Your task to perform on an android device: check data usage Image 0: 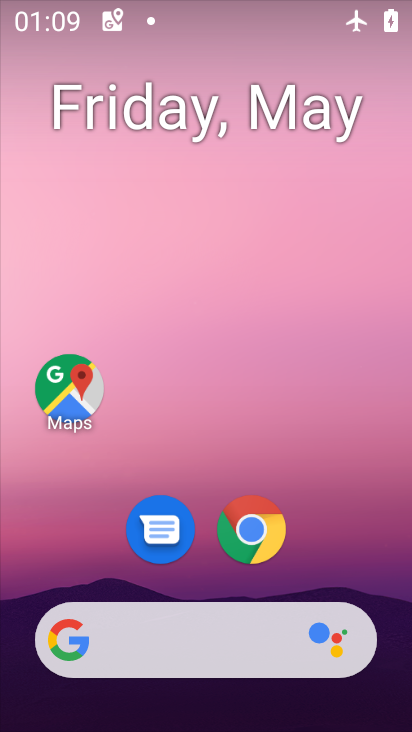
Step 0: drag from (306, 404) to (245, 156)
Your task to perform on an android device: check data usage Image 1: 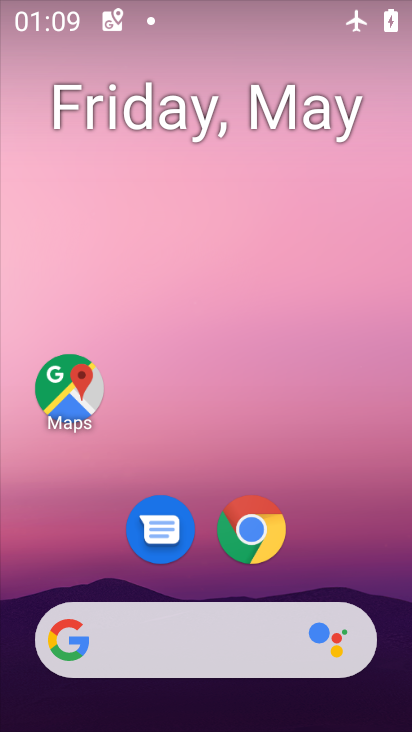
Step 1: drag from (272, 565) to (310, 219)
Your task to perform on an android device: check data usage Image 2: 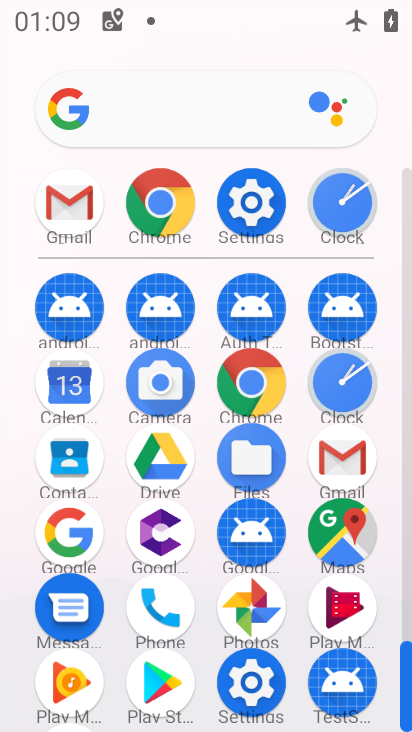
Step 2: click (234, 197)
Your task to perform on an android device: check data usage Image 3: 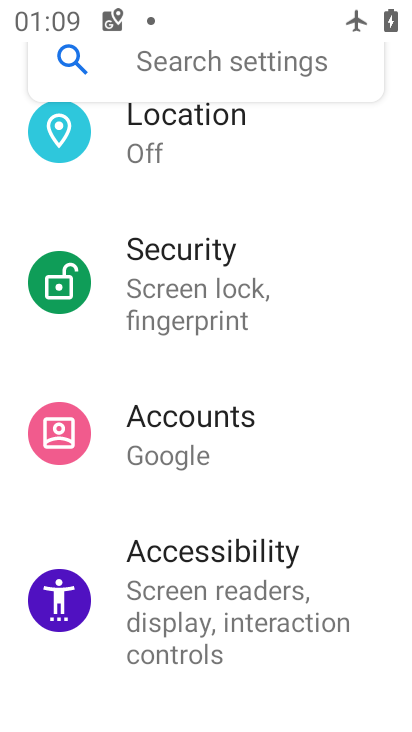
Step 3: drag from (284, 169) to (278, 621)
Your task to perform on an android device: check data usage Image 4: 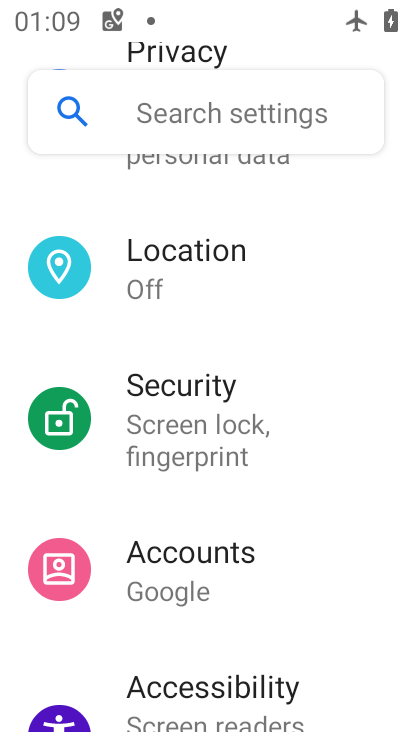
Step 4: drag from (259, 235) to (255, 584)
Your task to perform on an android device: check data usage Image 5: 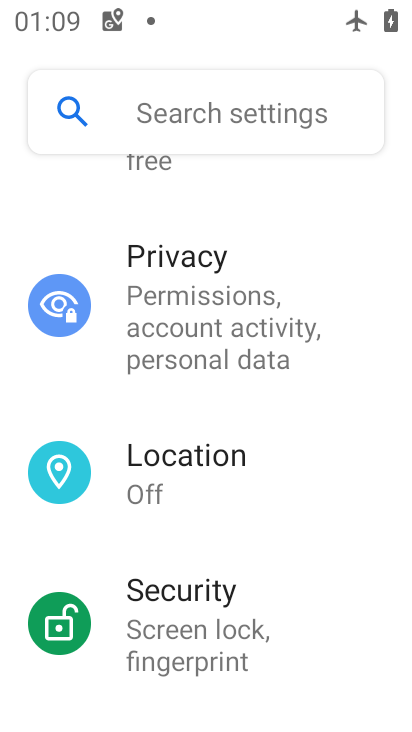
Step 5: drag from (183, 245) to (181, 614)
Your task to perform on an android device: check data usage Image 6: 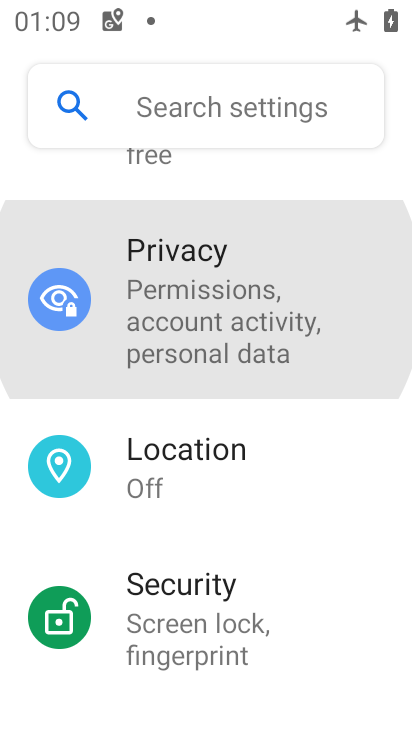
Step 6: drag from (165, 275) to (184, 653)
Your task to perform on an android device: check data usage Image 7: 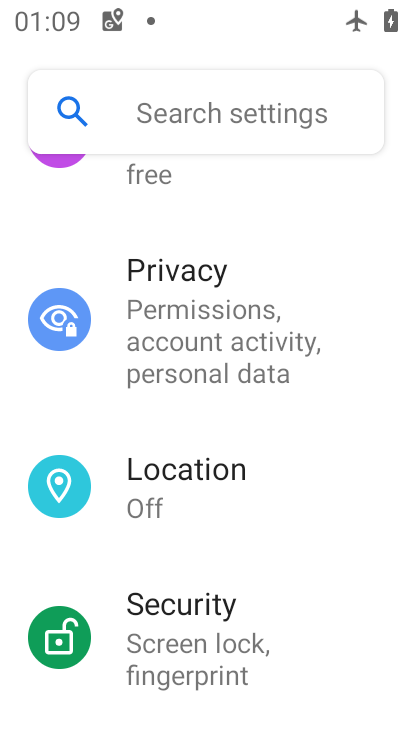
Step 7: drag from (274, 314) to (263, 506)
Your task to perform on an android device: check data usage Image 8: 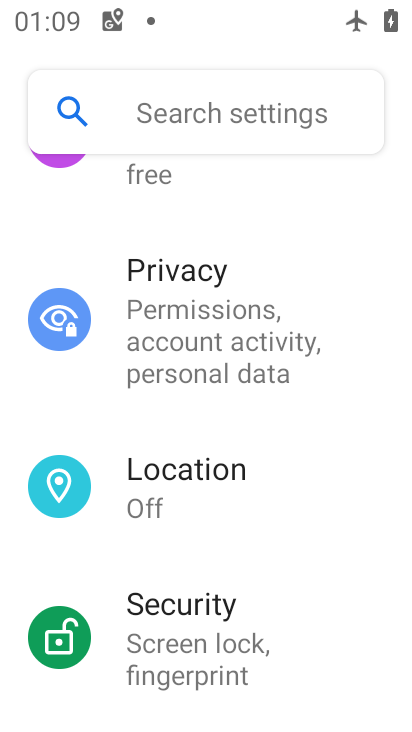
Step 8: drag from (225, 255) to (226, 624)
Your task to perform on an android device: check data usage Image 9: 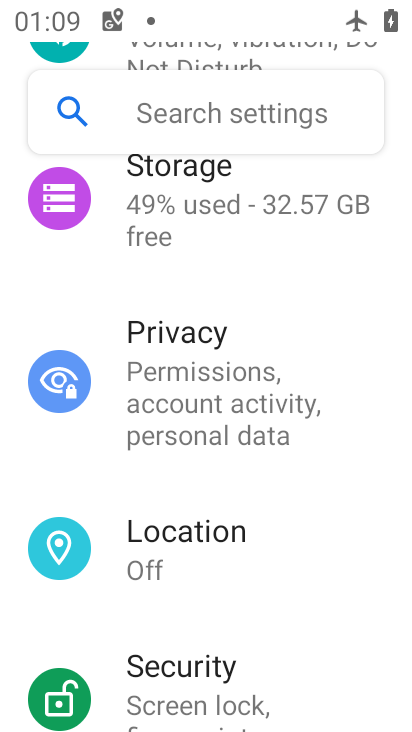
Step 9: drag from (147, 216) to (118, 617)
Your task to perform on an android device: check data usage Image 10: 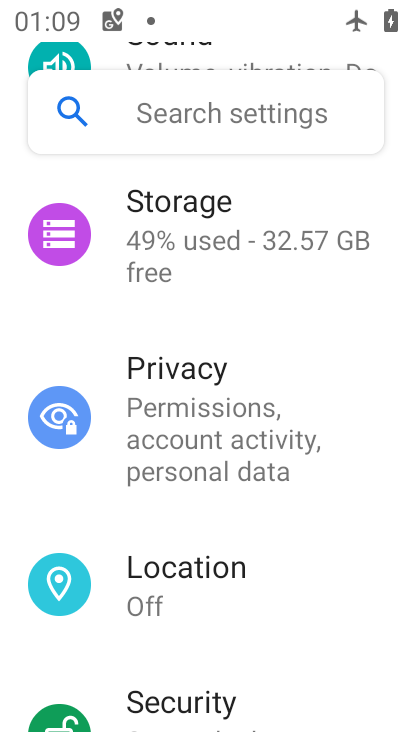
Step 10: drag from (80, 544) to (110, 698)
Your task to perform on an android device: check data usage Image 11: 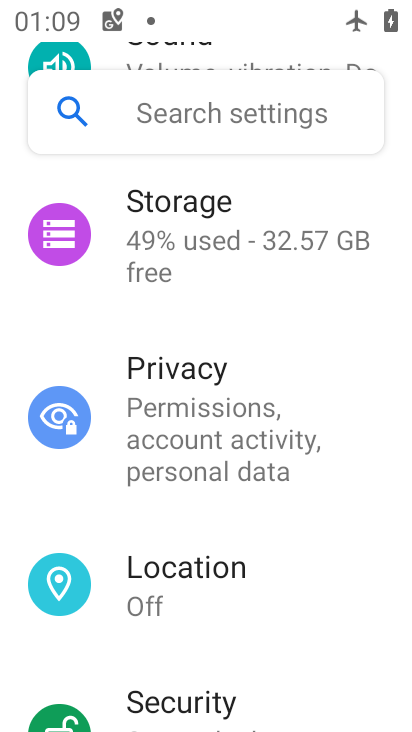
Step 11: drag from (143, 386) to (176, 717)
Your task to perform on an android device: check data usage Image 12: 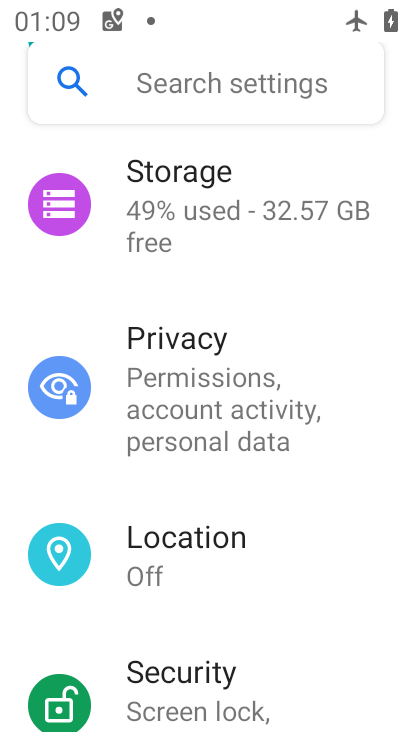
Step 12: drag from (287, 234) to (266, 586)
Your task to perform on an android device: check data usage Image 13: 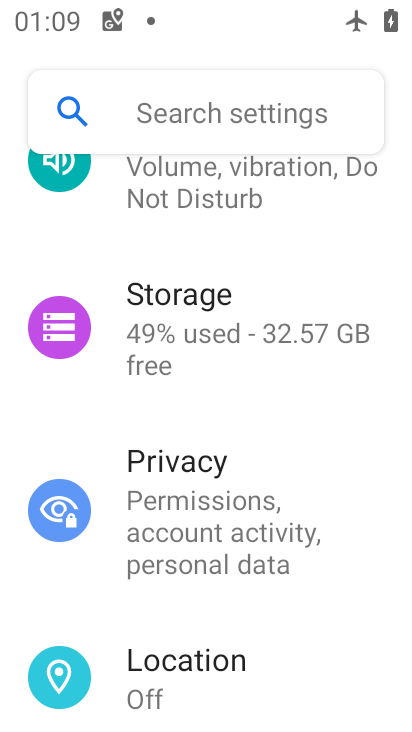
Step 13: drag from (157, 464) to (172, 686)
Your task to perform on an android device: check data usage Image 14: 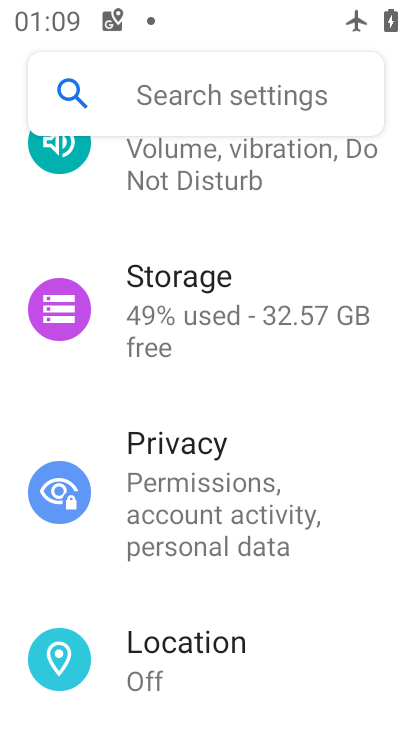
Step 14: drag from (198, 407) to (198, 709)
Your task to perform on an android device: check data usage Image 15: 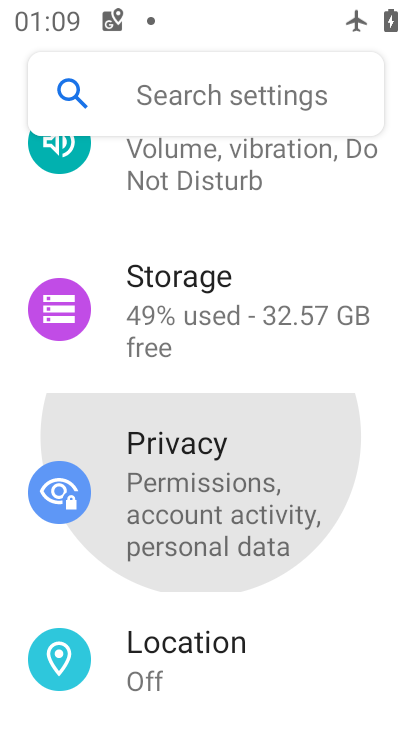
Step 15: drag from (220, 560) to (257, 696)
Your task to perform on an android device: check data usage Image 16: 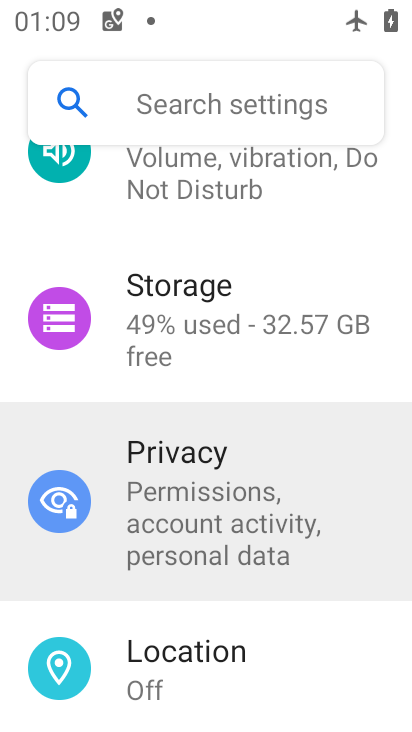
Step 16: drag from (248, 343) to (279, 525)
Your task to perform on an android device: check data usage Image 17: 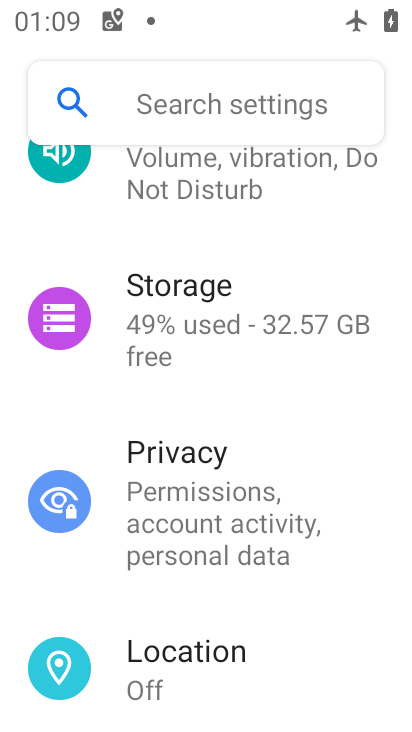
Step 17: drag from (345, 252) to (354, 606)
Your task to perform on an android device: check data usage Image 18: 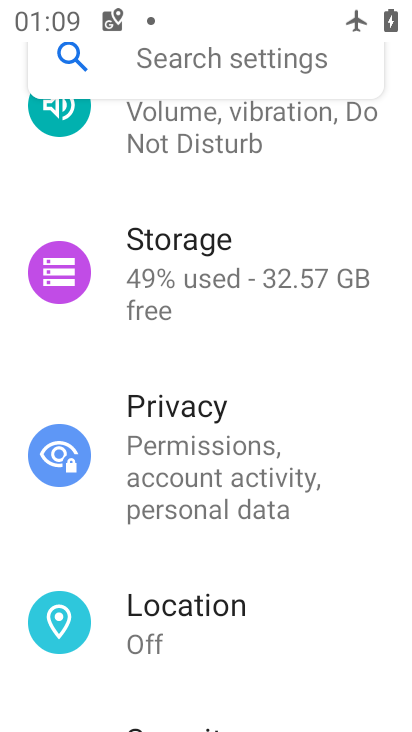
Step 18: drag from (312, 174) to (270, 519)
Your task to perform on an android device: check data usage Image 19: 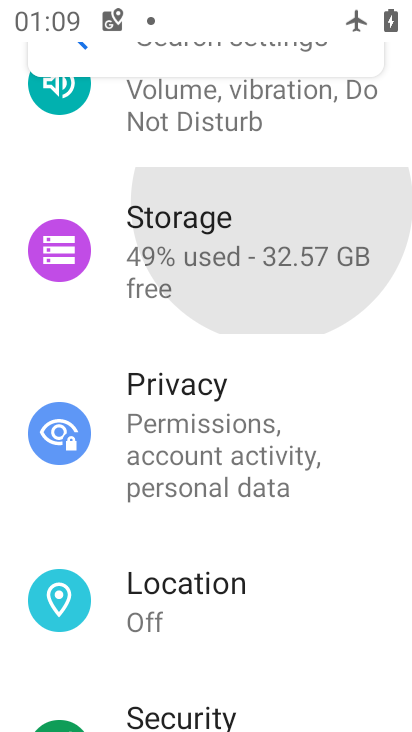
Step 19: drag from (224, 205) to (236, 672)
Your task to perform on an android device: check data usage Image 20: 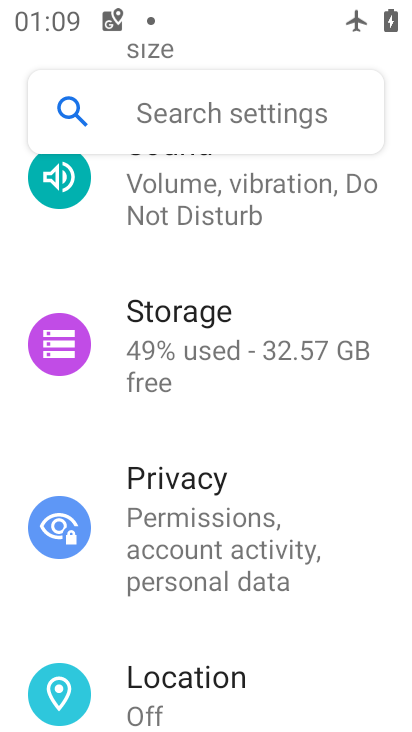
Step 20: drag from (171, 273) to (252, 654)
Your task to perform on an android device: check data usage Image 21: 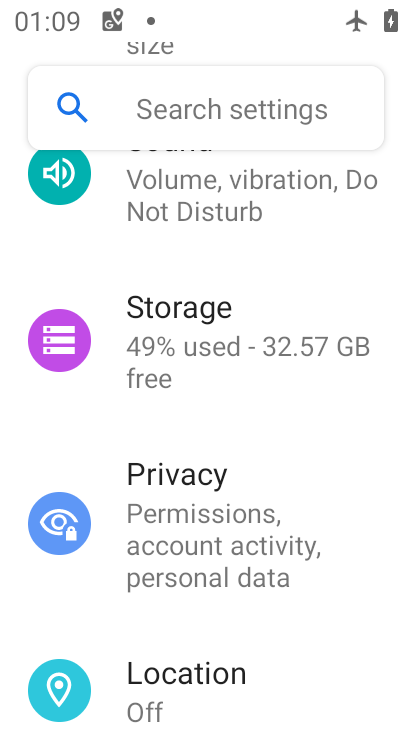
Step 21: drag from (111, 262) to (220, 624)
Your task to perform on an android device: check data usage Image 22: 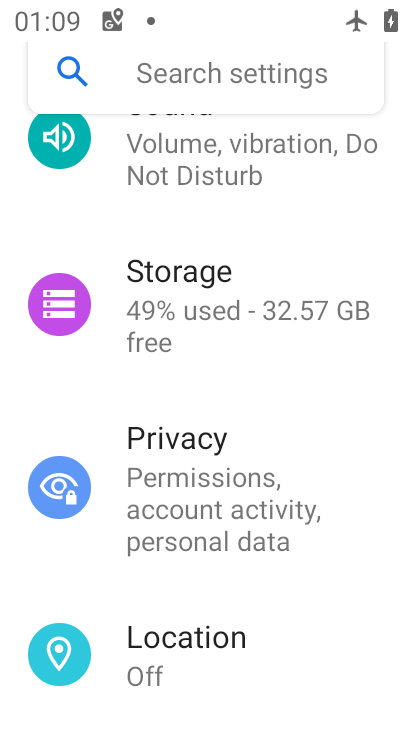
Step 22: drag from (189, 299) to (192, 573)
Your task to perform on an android device: check data usage Image 23: 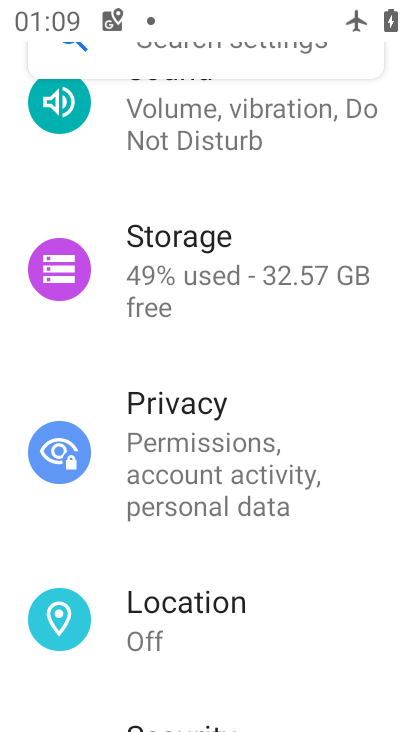
Step 23: drag from (188, 441) to (246, 616)
Your task to perform on an android device: check data usage Image 24: 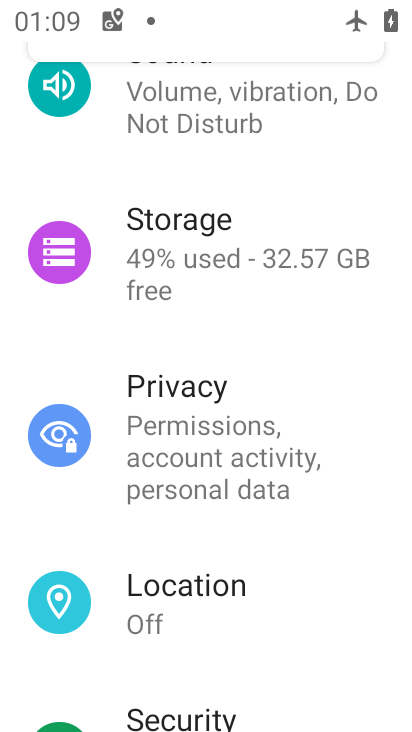
Step 24: click (213, 459)
Your task to perform on an android device: check data usage Image 25: 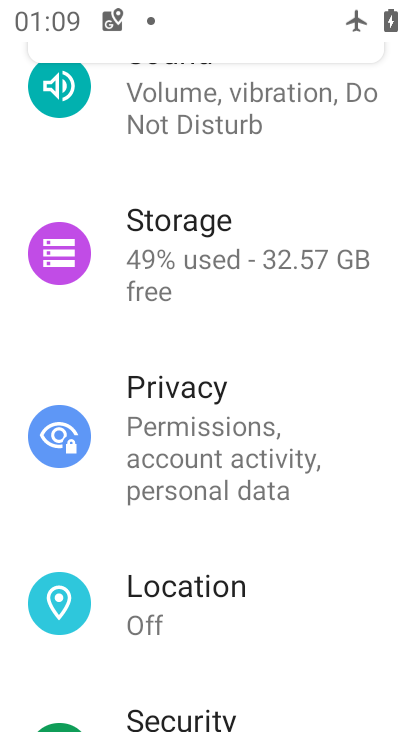
Step 25: click (265, 576)
Your task to perform on an android device: check data usage Image 26: 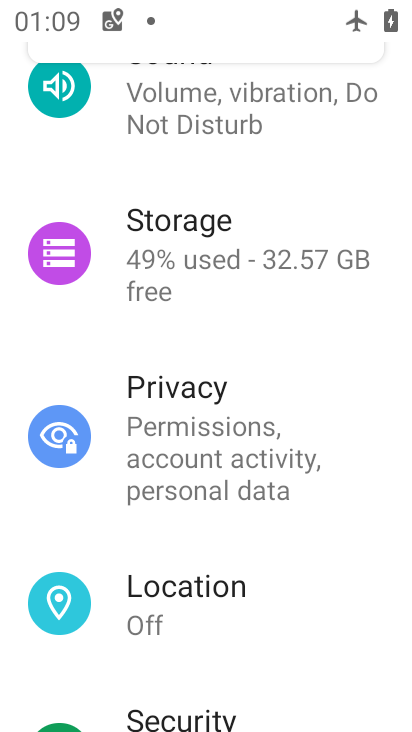
Step 26: drag from (292, 304) to (307, 513)
Your task to perform on an android device: check data usage Image 27: 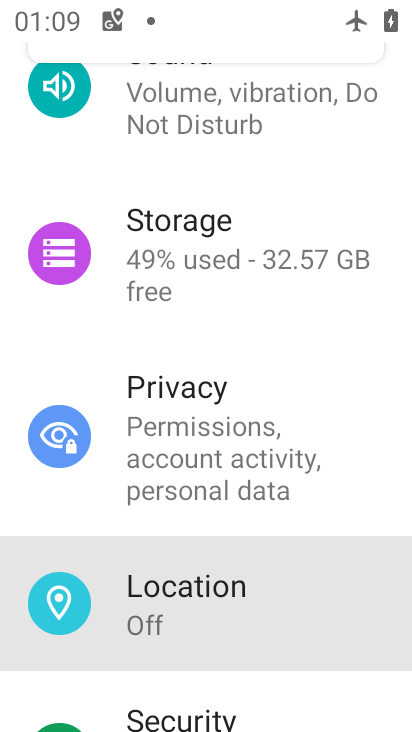
Step 27: drag from (224, 271) to (222, 449)
Your task to perform on an android device: check data usage Image 28: 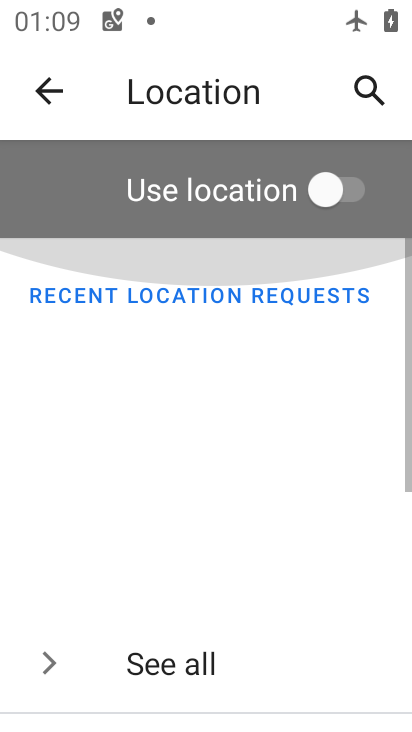
Step 28: drag from (182, 259) to (187, 593)
Your task to perform on an android device: check data usage Image 29: 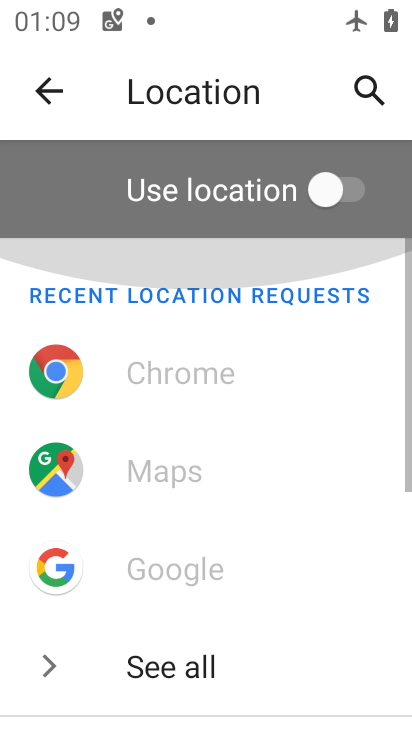
Step 29: drag from (138, 260) to (166, 596)
Your task to perform on an android device: check data usage Image 30: 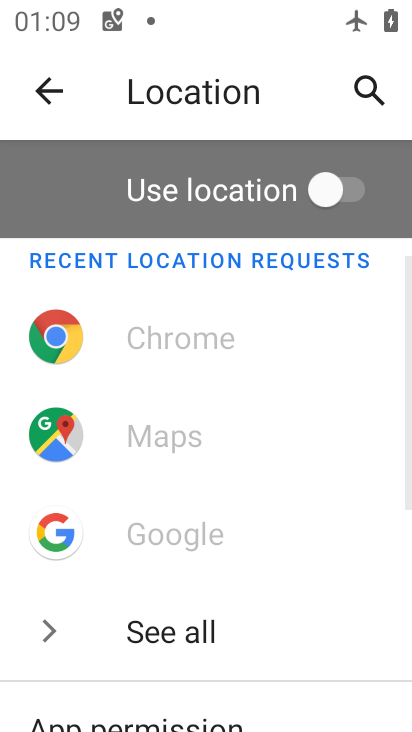
Step 30: click (50, 72)
Your task to perform on an android device: check data usage Image 31: 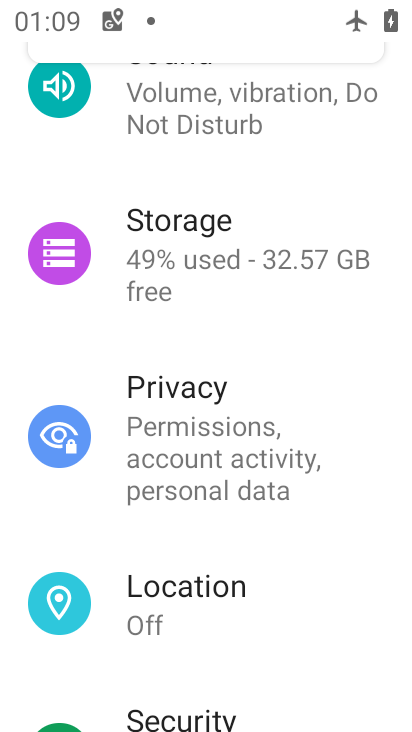
Step 31: drag from (298, 261) to (204, 525)
Your task to perform on an android device: check data usage Image 32: 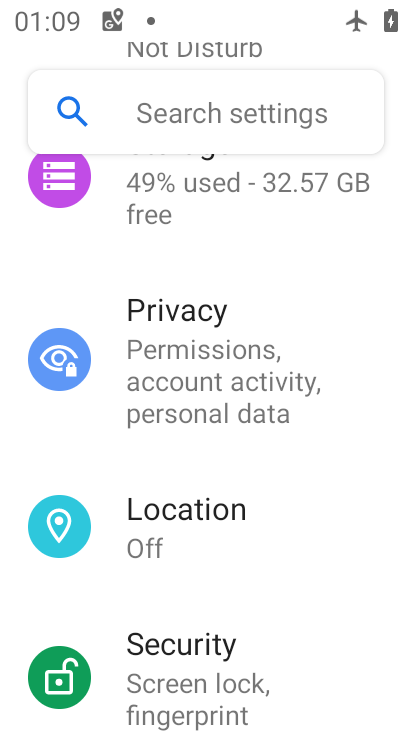
Step 32: drag from (209, 590) to (227, 697)
Your task to perform on an android device: check data usage Image 33: 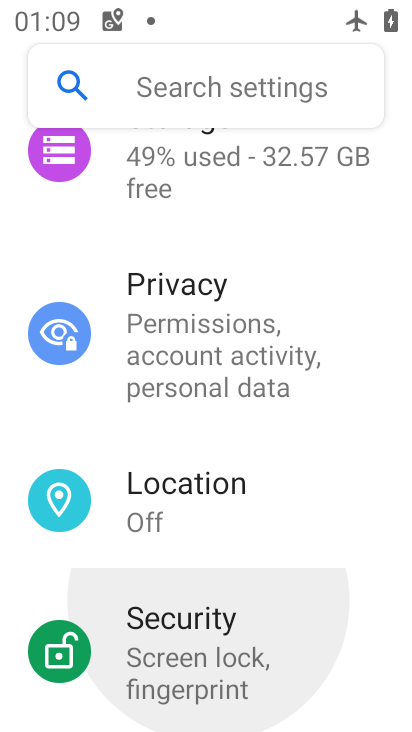
Step 33: drag from (154, 611) to (182, 684)
Your task to perform on an android device: check data usage Image 34: 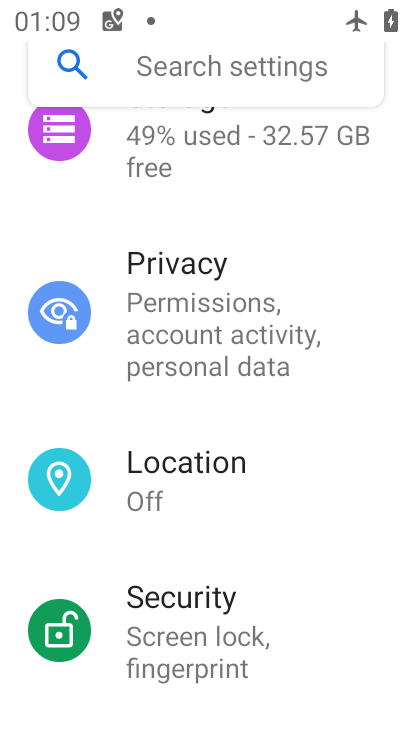
Step 34: drag from (141, 543) to (210, 720)
Your task to perform on an android device: check data usage Image 35: 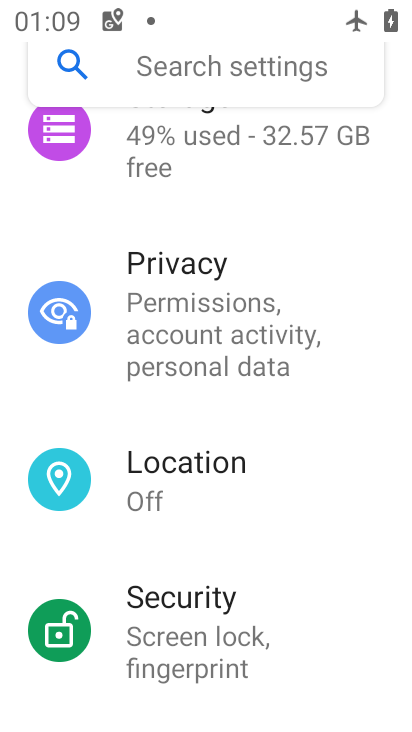
Step 35: drag from (196, 337) to (217, 655)
Your task to perform on an android device: check data usage Image 36: 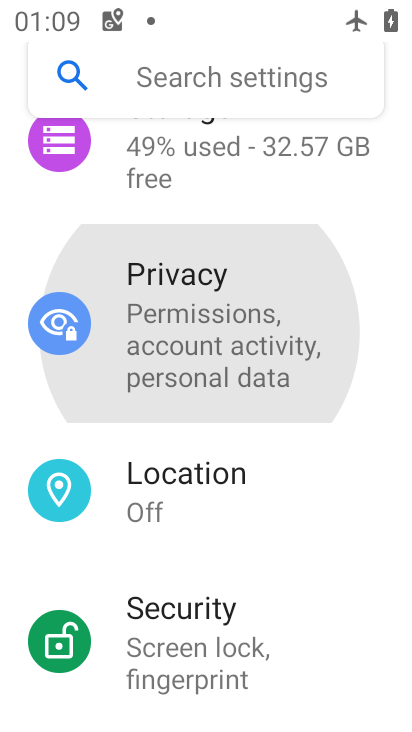
Step 36: drag from (301, 328) to (294, 641)
Your task to perform on an android device: check data usage Image 37: 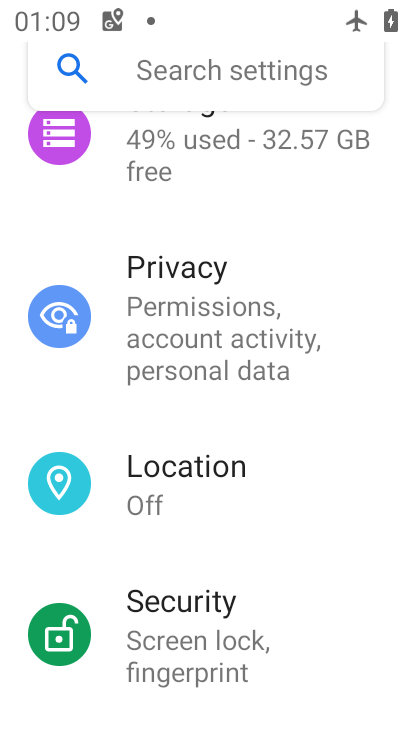
Step 37: click (133, 544)
Your task to perform on an android device: check data usage Image 38: 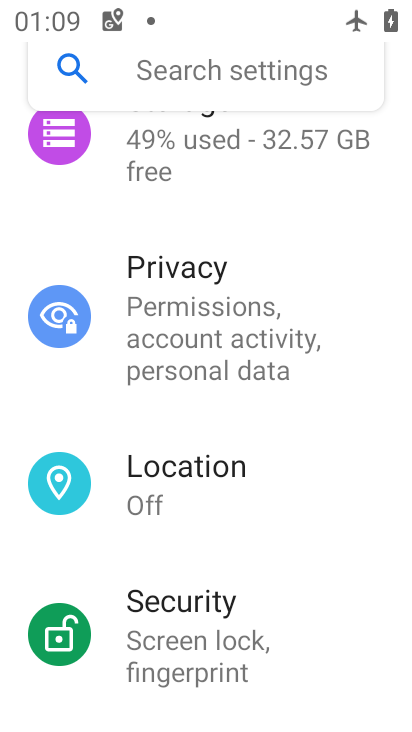
Step 38: drag from (247, 344) to (144, 462)
Your task to perform on an android device: check data usage Image 39: 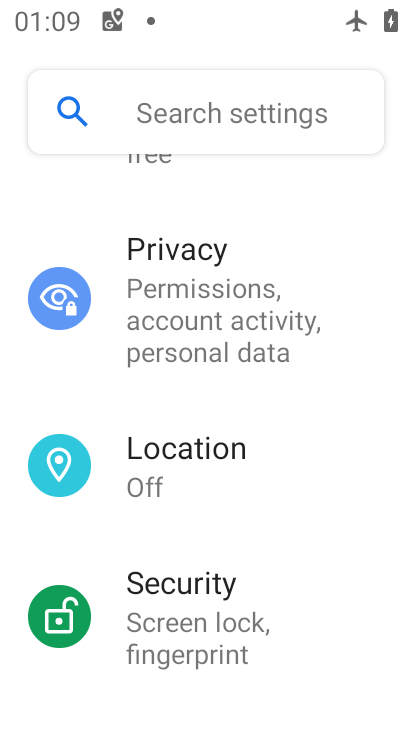
Step 39: drag from (77, 169) to (118, 552)
Your task to perform on an android device: check data usage Image 40: 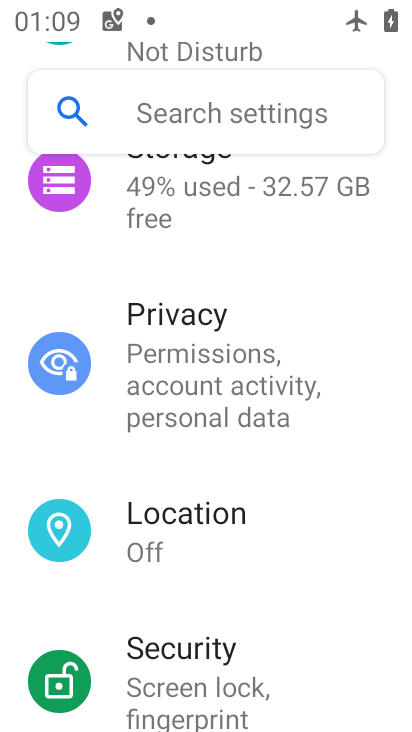
Step 40: drag from (85, 203) to (102, 446)
Your task to perform on an android device: check data usage Image 41: 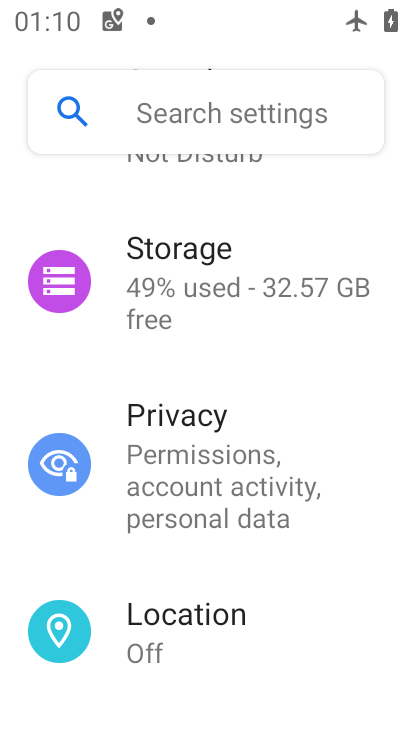
Step 41: drag from (227, 371) to (243, 525)
Your task to perform on an android device: check data usage Image 42: 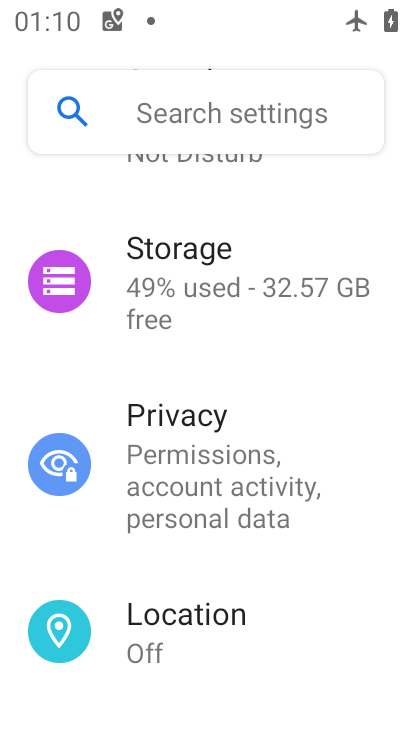
Step 42: drag from (336, 323) to (303, 597)
Your task to perform on an android device: check data usage Image 43: 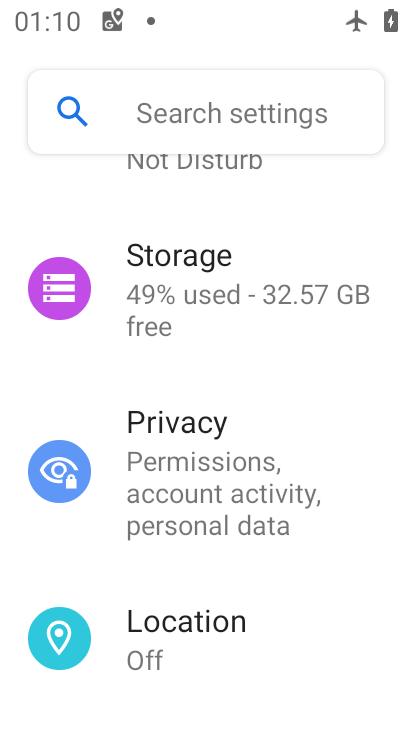
Step 43: drag from (195, 285) to (189, 643)
Your task to perform on an android device: check data usage Image 44: 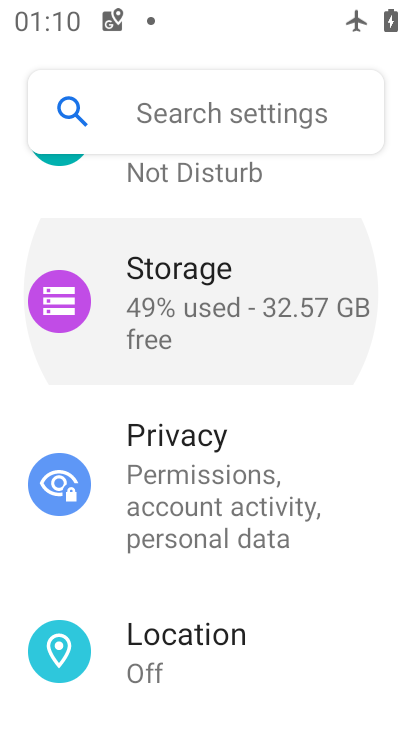
Step 44: drag from (201, 253) to (148, 698)
Your task to perform on an android device: check data usage Image 45: 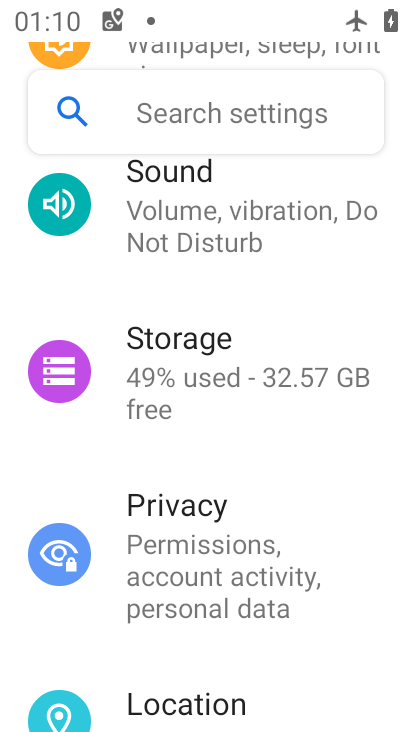
Step 45: drag from (106, 265) to (154, 627)
Your task to perform on an android device: check data usage Image 46: 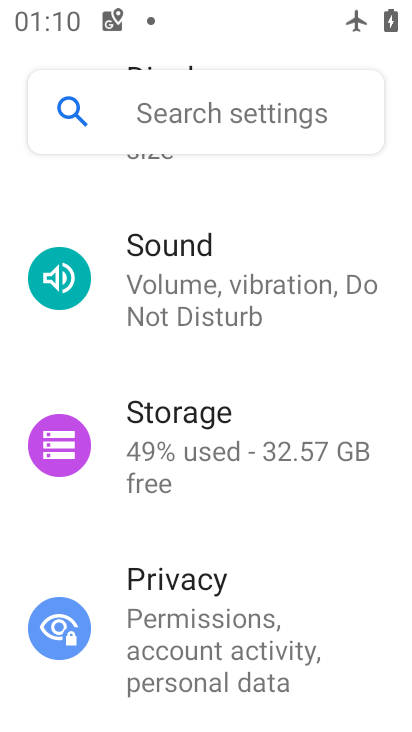
Step 46: drag from (168, 233) to (130, 727)
Your task to perform on an android device: check data usage Image 47: 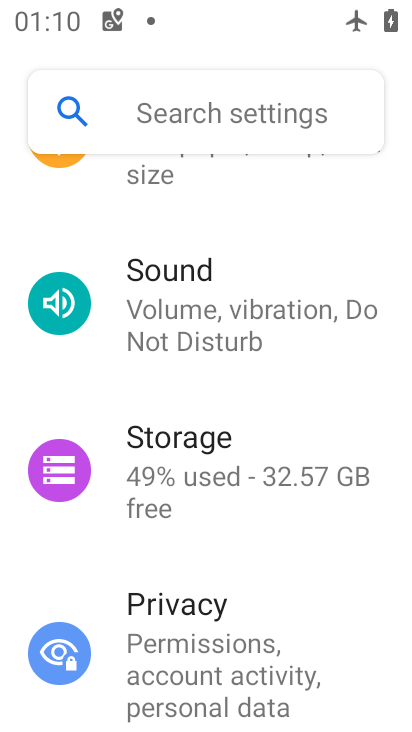
Step 47: drag from (70, 342) to (98, 673)
Your task to perform on an android device: check data usage Image 48: 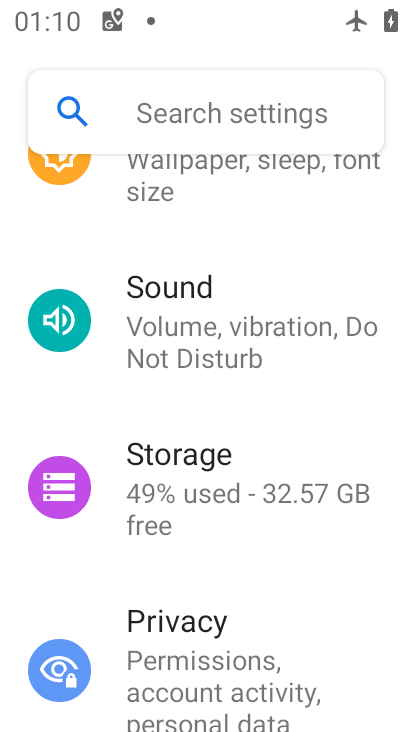
Step 48: drag from (137, 378) to (153, 544)
Your task to perform on an android device: check data usage Image 49: 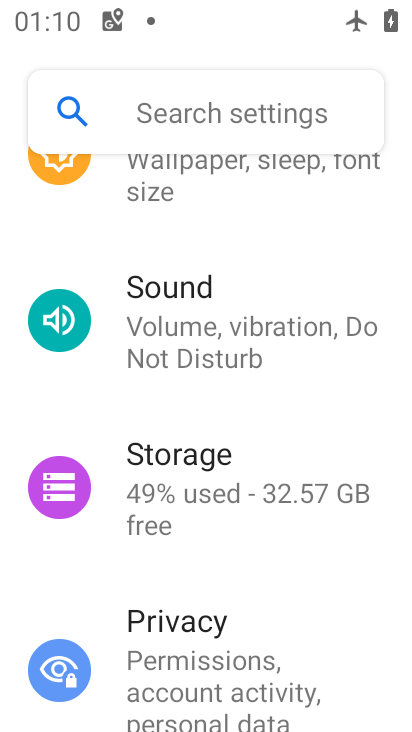
Step 49: drag from (193, 378) to (199, 668)
Your task to perform on an android device: check data usage Image 50: 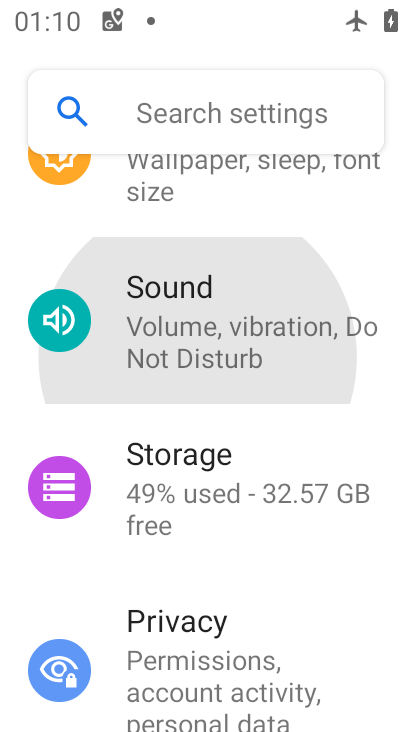
Step 50: drag from (134, 225) to (162, 467)
Your task to perform on an android device: check data usage Image 51: 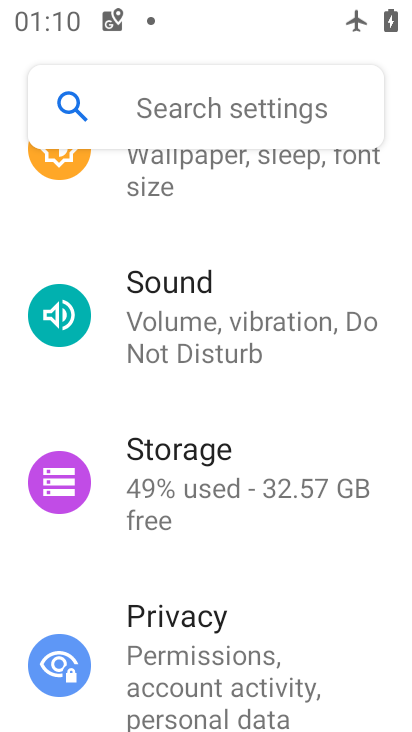
Step 51: drag from (228, 87) to (225, 606)
Your task to perform on an android device: check data usage Image 52: 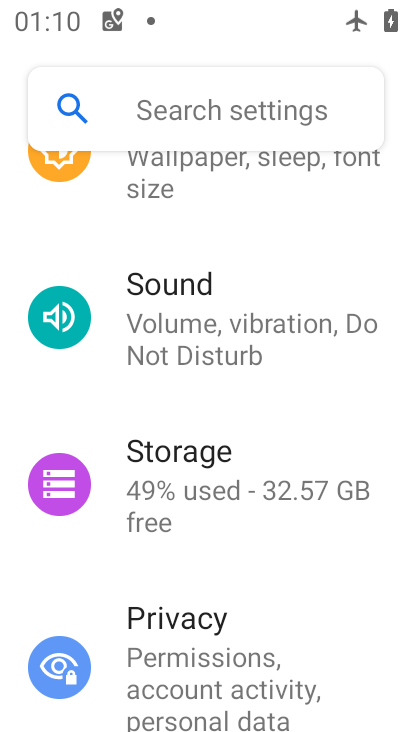
Step 52: drag from (186, 341) to (227, 715)
Your task to perform on an android device: check data usage Image 53: 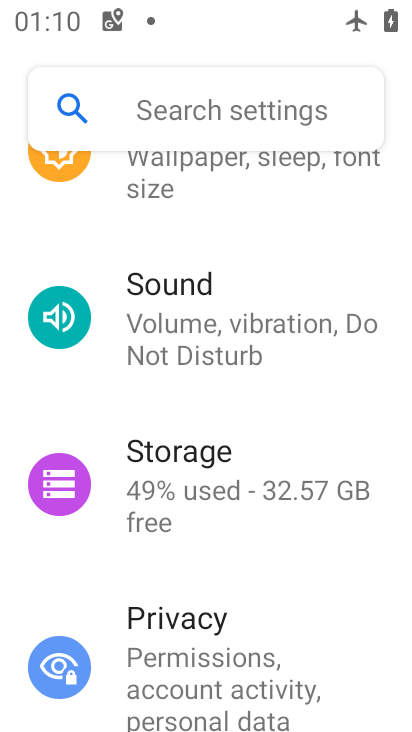
Step 53: drag from (241, 270) to (256, 572)
Your task to perform on an android device: check data usage Image 54: 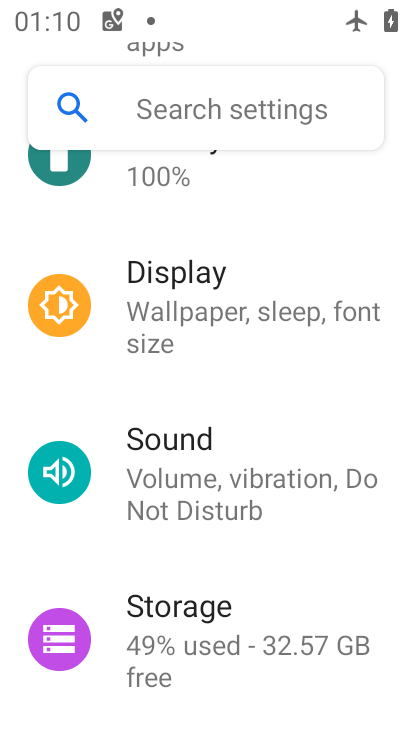
Step 54: drag from (254, 293) to (254, 589)
Your task to perform on an android device: check data usage Image 55: 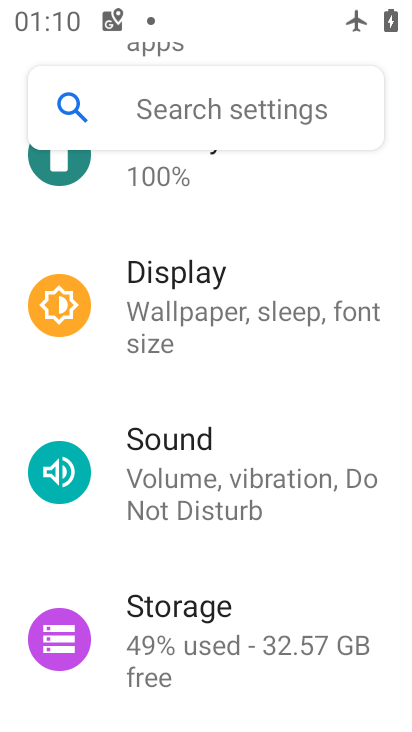
Step 55: drag from (196, 247) to (221, 583)
Your task to perform on an android device: check data usage Image 56: 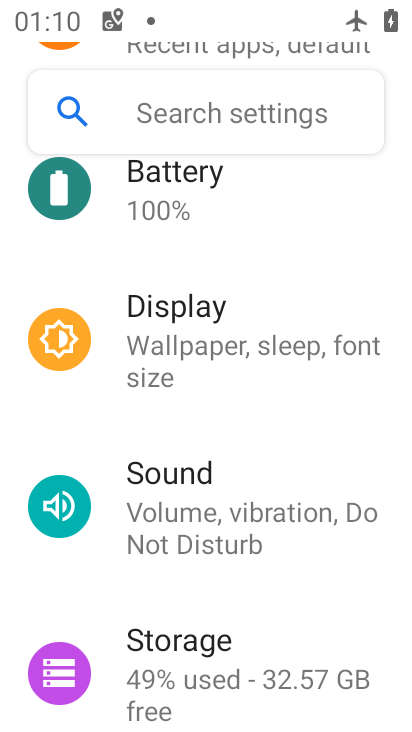
Step 56: drag from (166, 175) to (183, 577)
Your task to perform on an android device: check data usage Image 57: 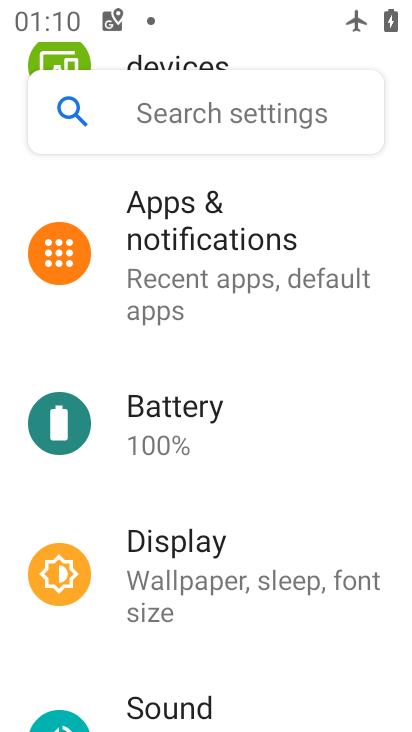
Step 57: drag from (147, 236) to (204, 535)
Your task to perform on an android device: check data usage Image 58: 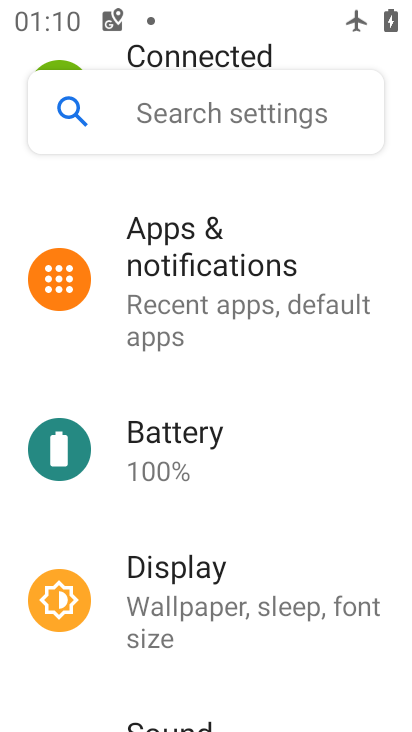
Step 58: drag from (189, 228) to (197, 609)
Your task to perform on an android device: check data usage Image 59: 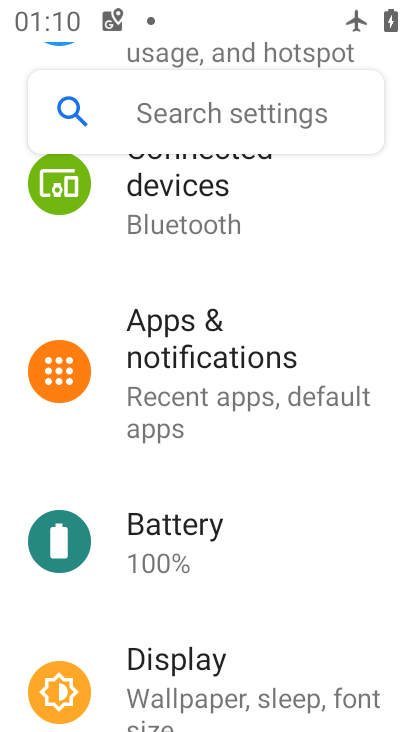
Step 59: drag from (222, 293) to (239, 466)
Your task to perform on an android device: check data usage Image 60: 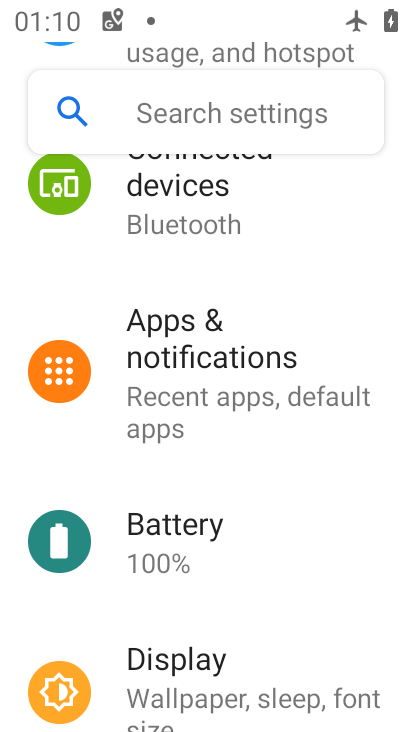
Step 60: drag from (234, 206) to (232, 564)
Your task to perform on an android device: check data usage Image 61: 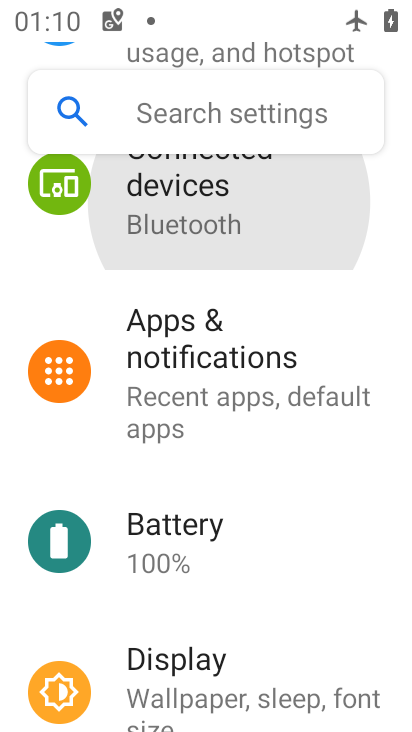
Step 61: drag from (171, 244) to (241, 568)
Your task to perform on an android device: check data usage Image 62: 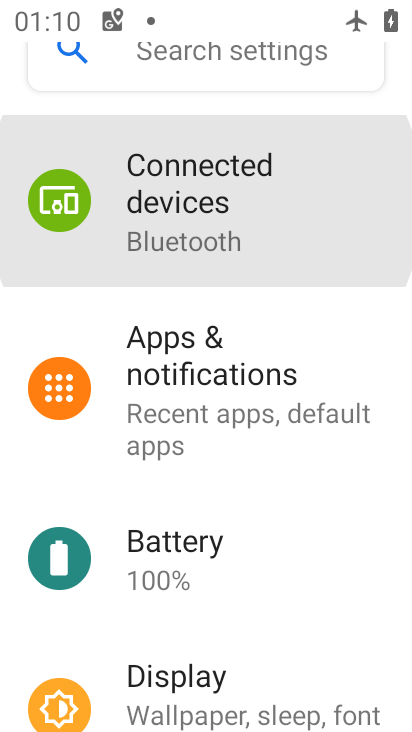
Step 62: drag from (286, 453) to (288, 540)
Your task to perform on an android device: check data usage Image 63: 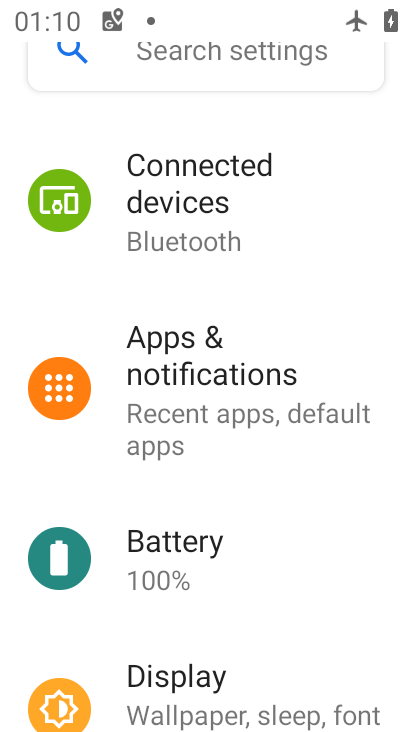
Step 63: drag from (215, 309) to (237, 568)
Your task to perform on an android device: check data usage Image 64: 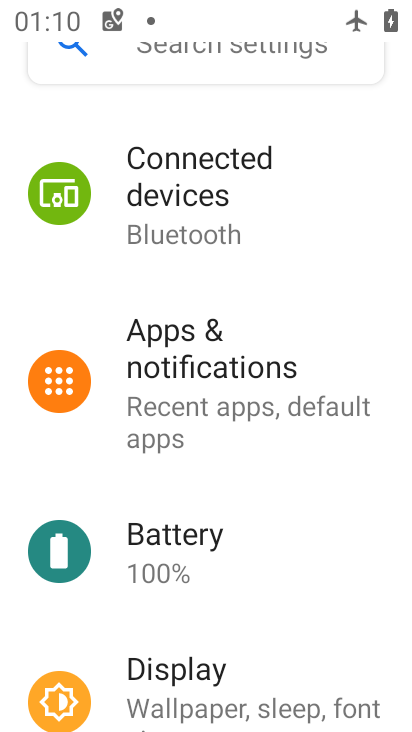
Step 64: drag from (231, 590) to (251, 636)
Your task to perform on an android device: check data usage Image 65: 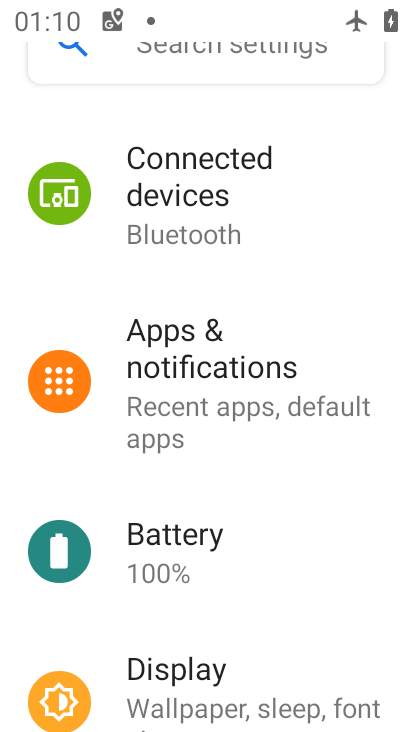
Step 65: drag from (222, 280) to (216, 624)
Your task to perform on an android device: check data usage Image 66: 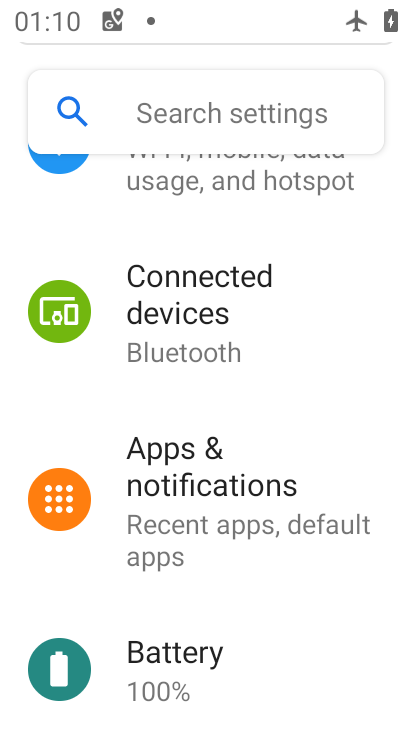
Step 66: drag from (192, 442) to (195, 517)
Your task to perform on an android device: check data usage Image 67: 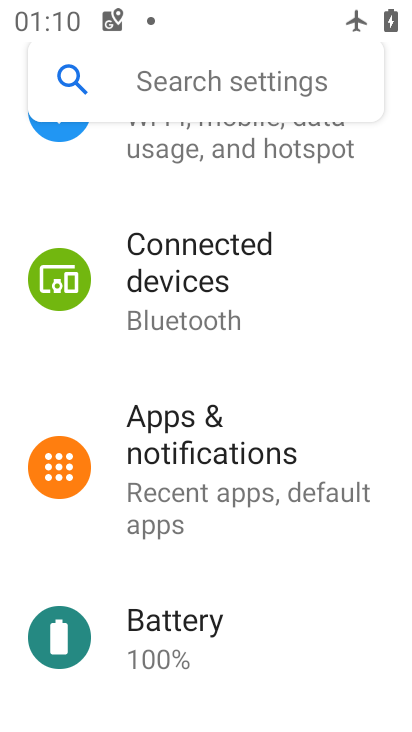
Step 67: drag from (232, 209) to (225, 384)
Your task to perform on an android device: check data usage Image 68: 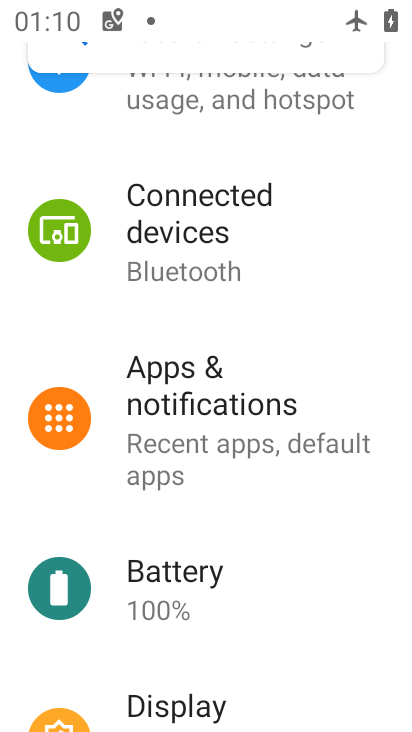
Step 68: drag from (157, 135) to (173, 469)
Your task to perform on an android device: check data usage Image 69: 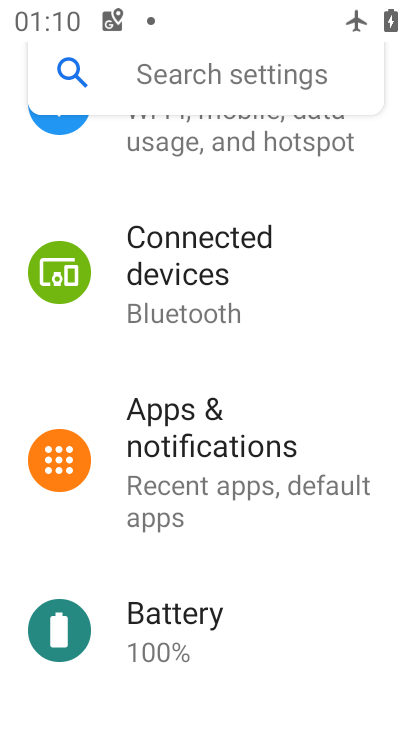
Step 69: click (221, 145)
Your task to perform on an android device: check data usage Image 70: 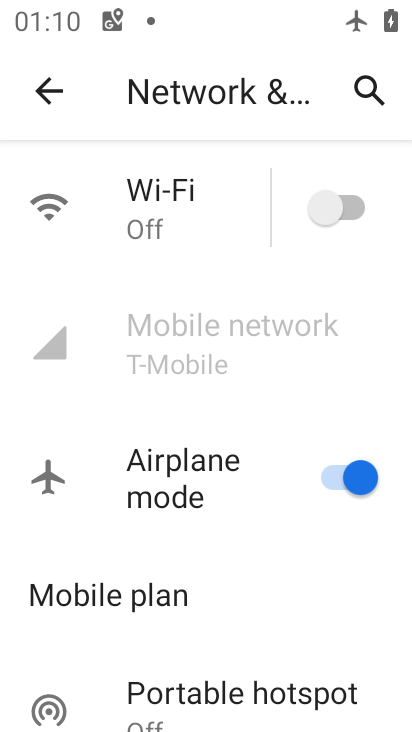
Step 70: click (209, 323)
Your task to perform on an android device: check data usage Image 71: 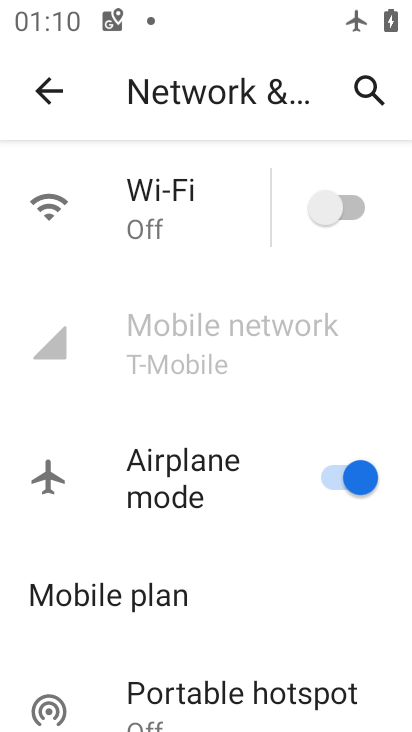
Step 71: task complete